Your task to perform on an android device: open wifi settings Image 0: 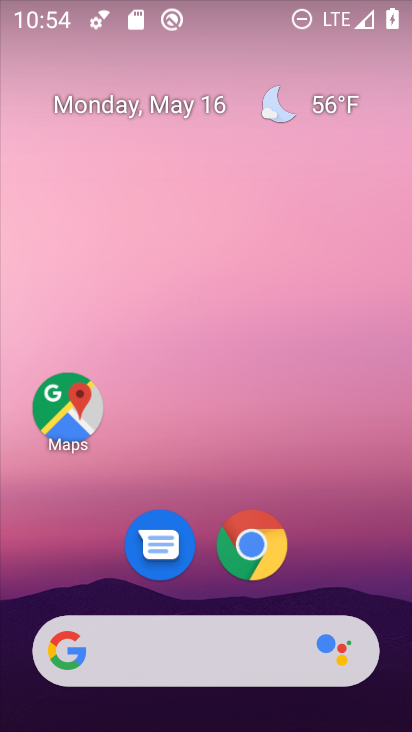
Step 0: drag from (341, 556) to (280, 247)
Your task to perform on an android device: open wifi settings Image 1: 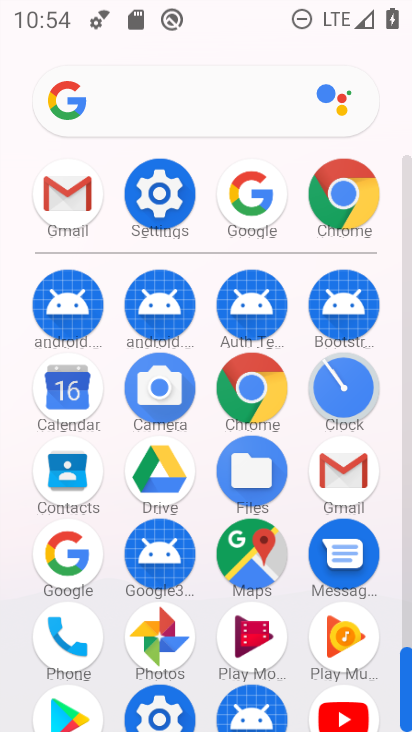
Step 1: click (159, 195)
Your task to perform on an android device: open wifi settings Image 2: 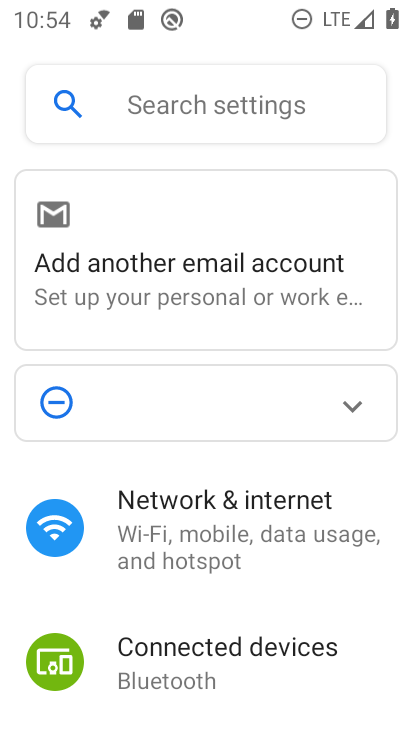
Step 2: click (205, 501)
Your task to perform on an android device: open wifi settings Image 3: 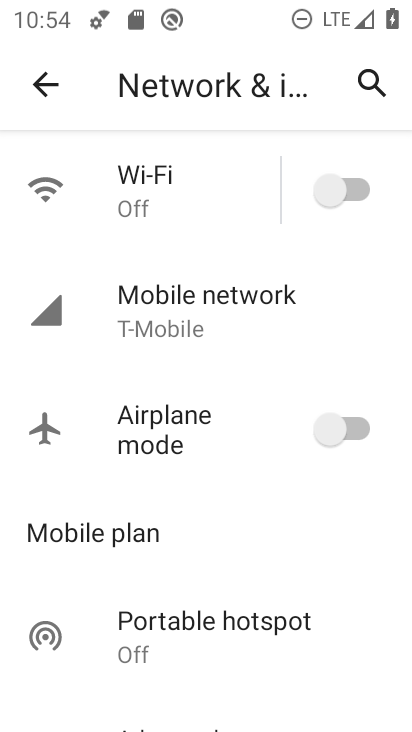
Step 3: click (155, 179)
Your task to perform on an android device: open wifi settings Image 4: 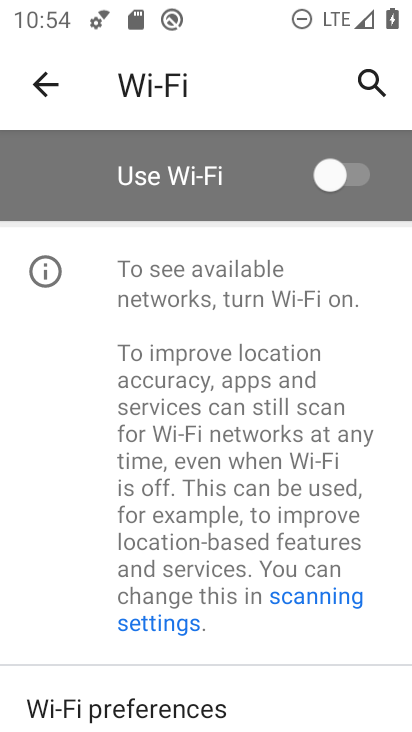
Step 4: task complete